Your task to perform on an android device: Show the shopping cart on newegg.com. Search for "razer blade" on newegg.com, select the first entry, add it to the cart, then select checkout. Image 0: 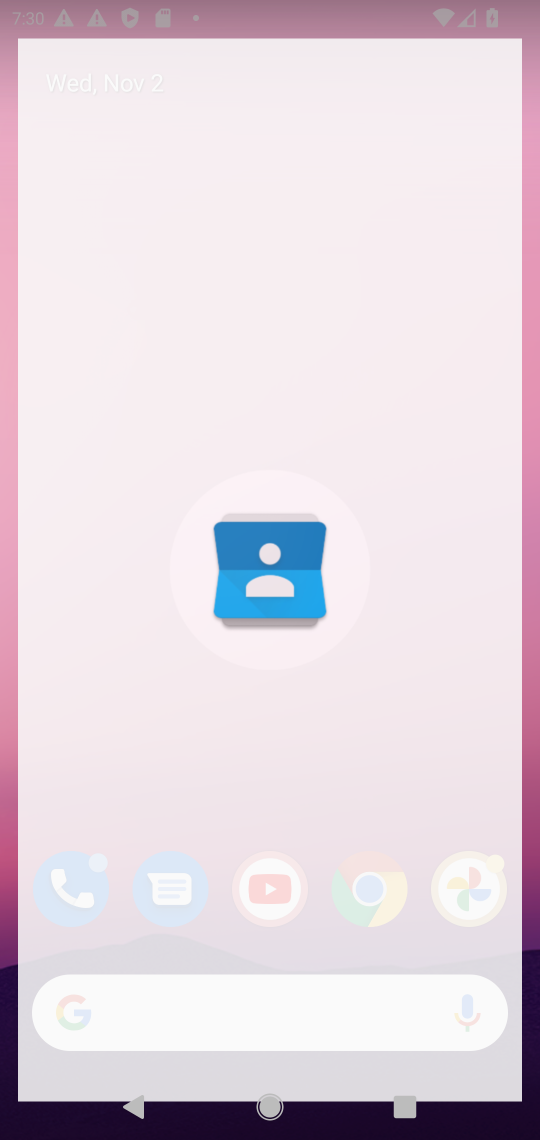
Step 0: press home button
Your task to perform on an android device: Show the shopping cart on newegg.com. Search for "razer blade" on newegg.com, select the first entry, add it to the cart, then select checkout. Image 1: 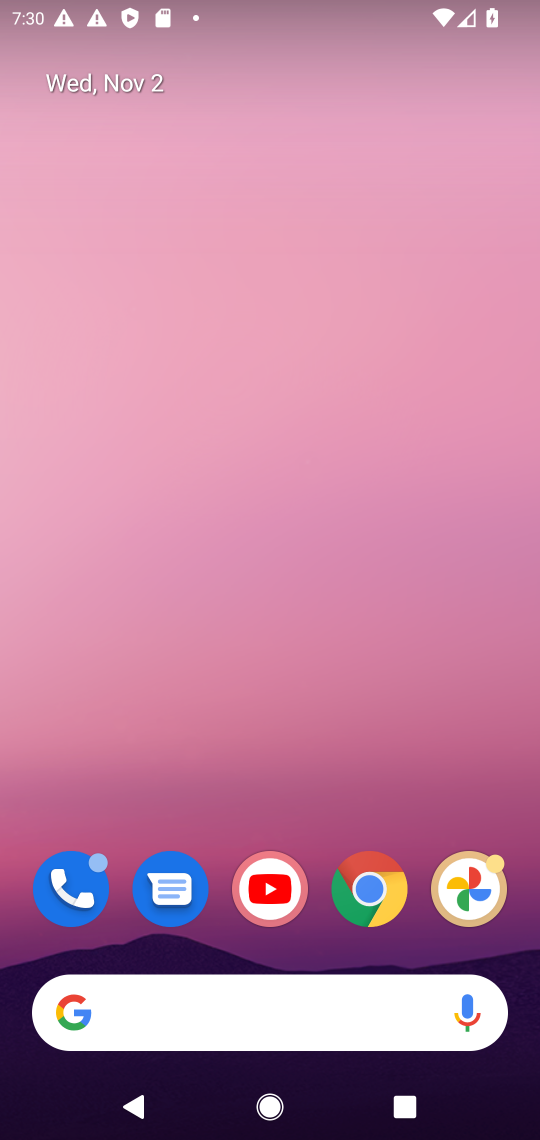
Step 1: drag from (305, 834) to (294, 43)
Your task to perform on an android device: Show the shopping cart on newegg.com. Search for "razer blade" on newegg.com, select the first entry, add it to the cart, then select checkout. Image 2: 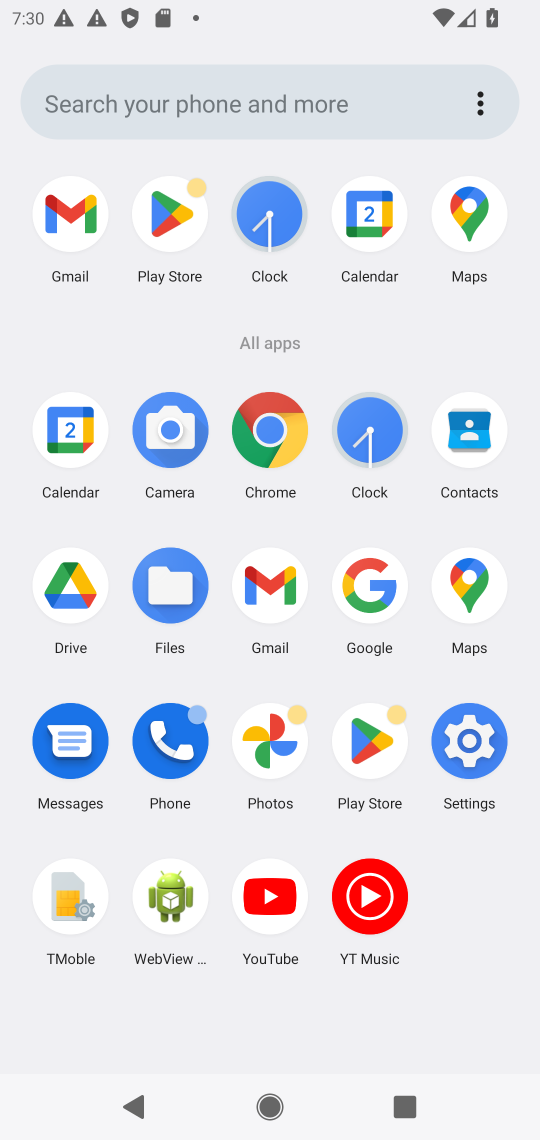
Step 2: click (264, 423)
Your task to perform on an android device: Show the shopping cart on newegg.com. Search for "razer blade" on newegg.com, select the first entry, add it to the cart, then select checkout. Image 3: 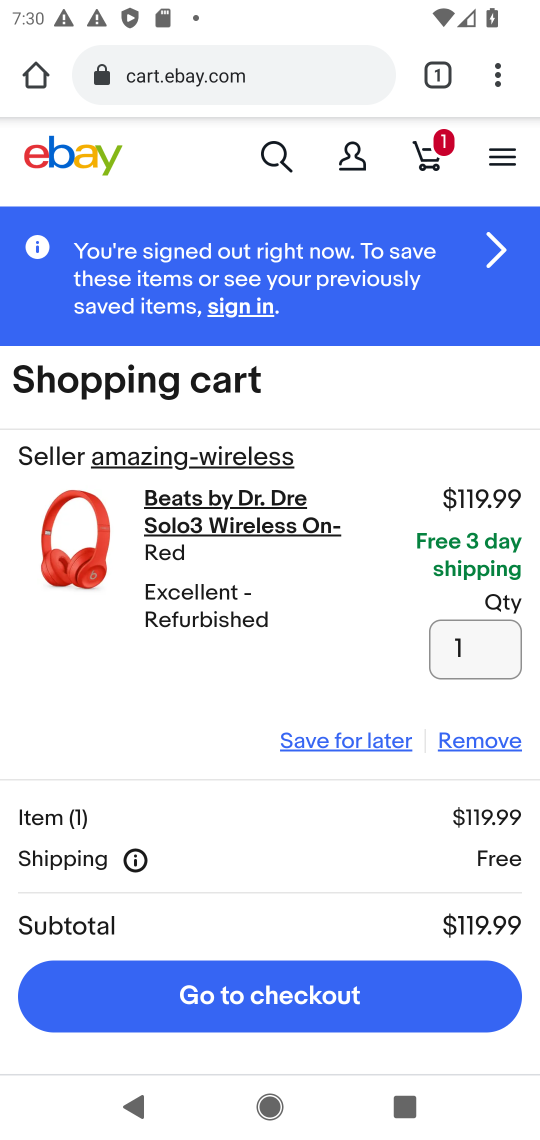
Step 3: click (273, 62)
Your task to perform on an android device: Show the shopping cart on newegg.com. Search for "razer blade" on newegg.com, select the first entry, add it to the cart, then select checkout. Image 4: 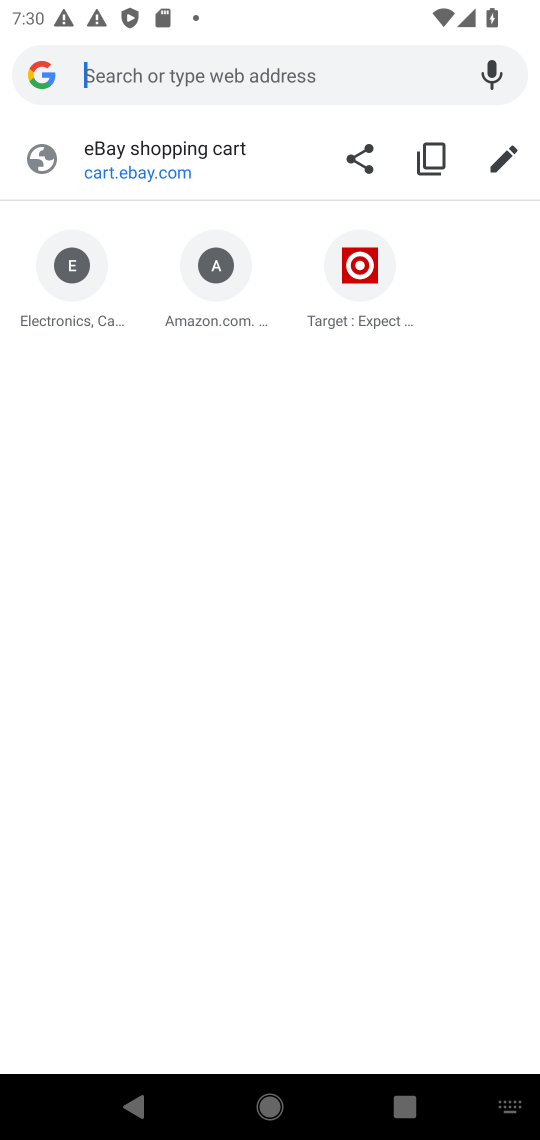
Step 4: type "newegg"
Your task to perform on an android device: Show the shopping cart on newegg.com. Search for "razer blade" on newegg.com, select the first entry, add it to the cart, then select checkout. Image 5: 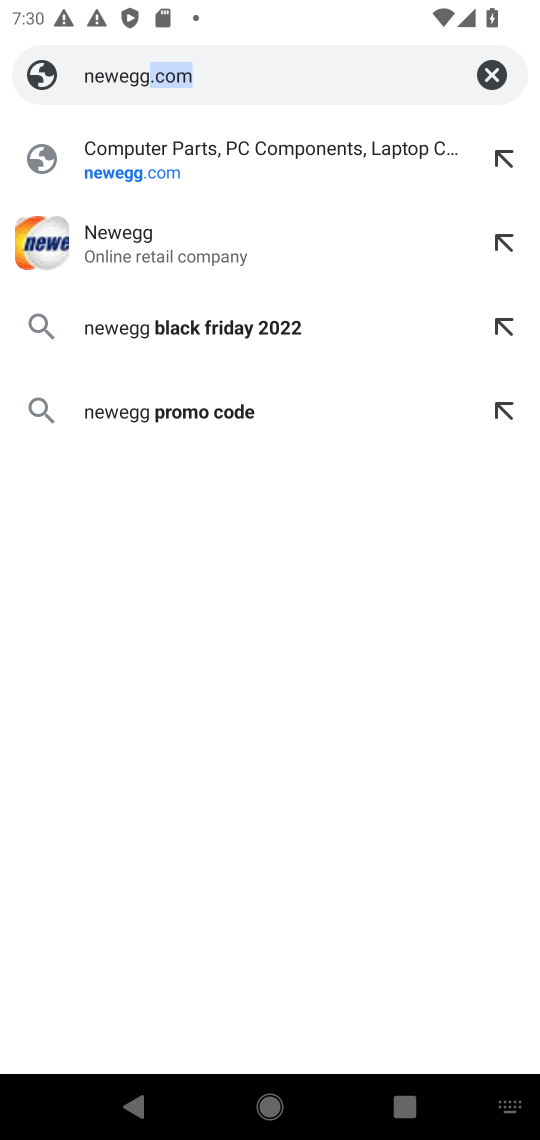
Step 5: click (216, 164)
Your task to perform on an android device: Show the shopping cart on newegg.com. Search for "razer blade" on newegg.com, select the first entry, add it to the cart, then select checkout. Image 6: 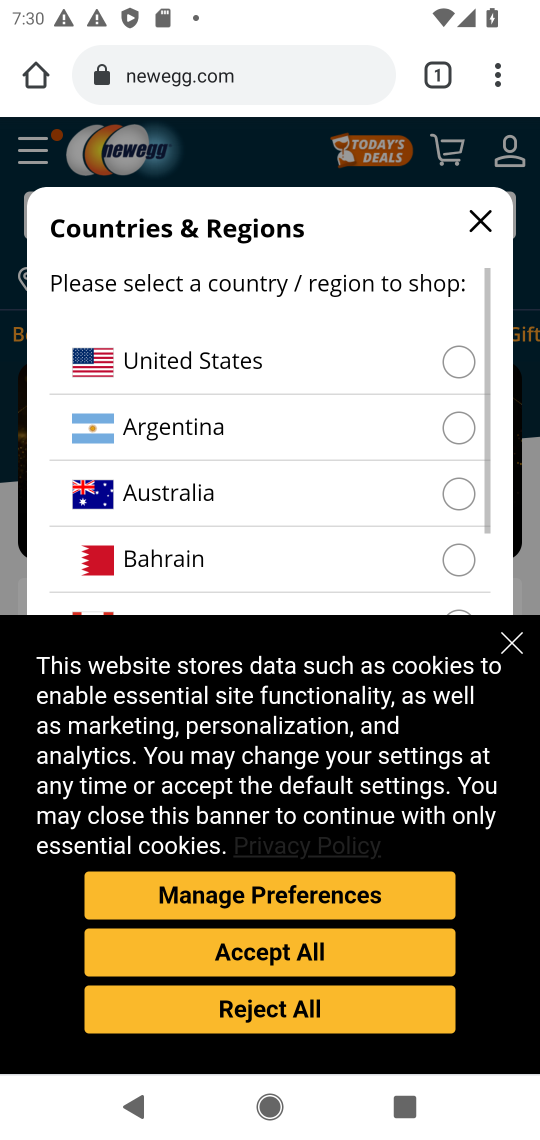
Step 6: click (510, 647)
Your task to perform on an android device: Show the shopping cart on newegg.com. Search for "razer blade" on newegg.com, select the first entry, add it to the cart, then select checkout. Image 7: 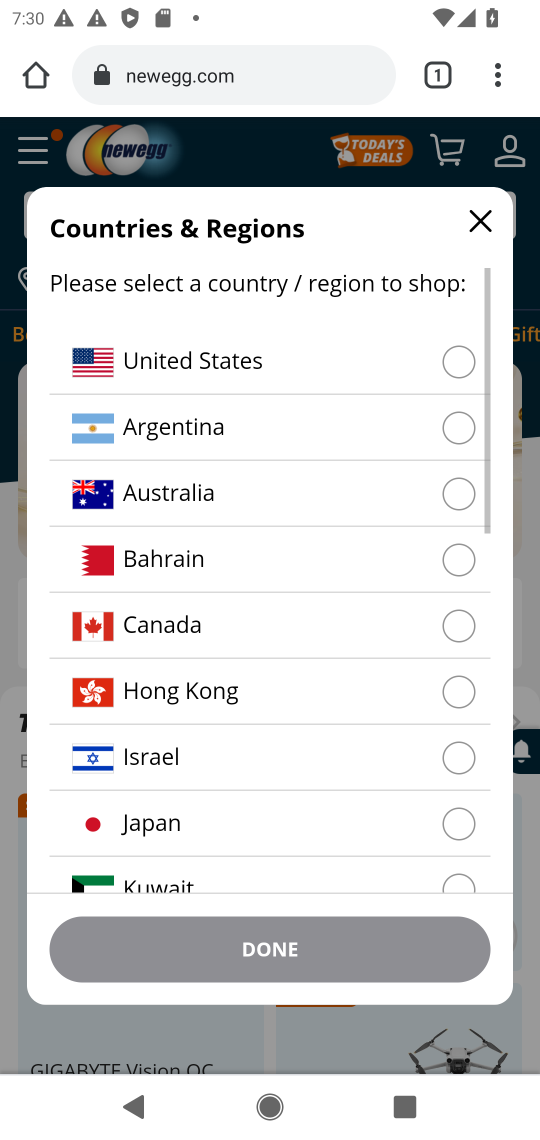
Step 7: click (453, 363)
Your task to perform on an android device: Show the shopping cart on newegg.com. Search for "razer blade" on newegg.com, select the first entry, add it to the cart, then select checkout. Image 8: 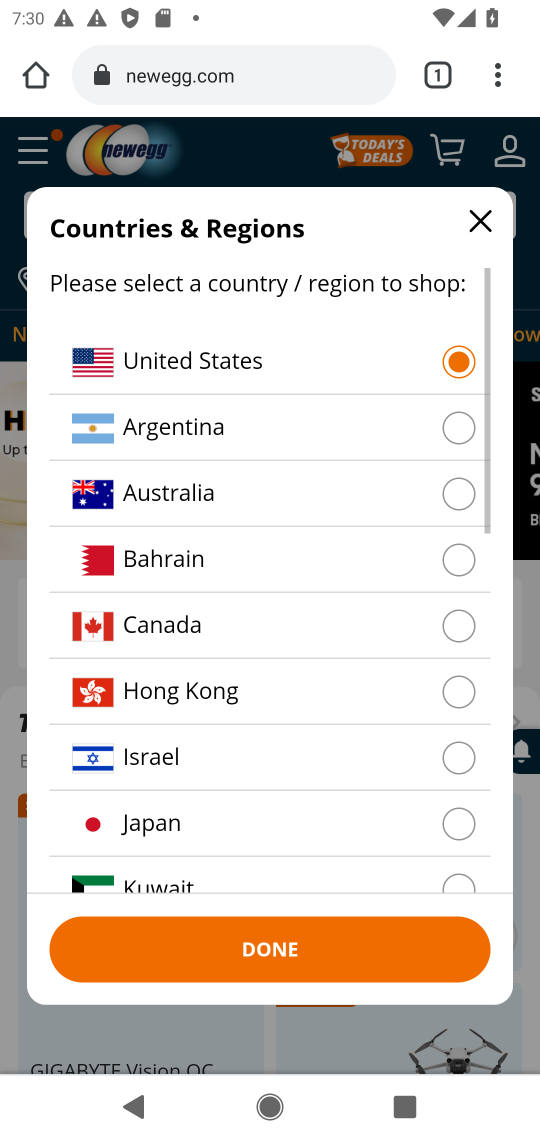
Step 8: click (288, 953)
Your task to perform on an android device: Show the shopping cart on newegg.com. Search for "razer blade" on newegg.com, select the first entry, add it to the cart, then select checkout. Image 9: 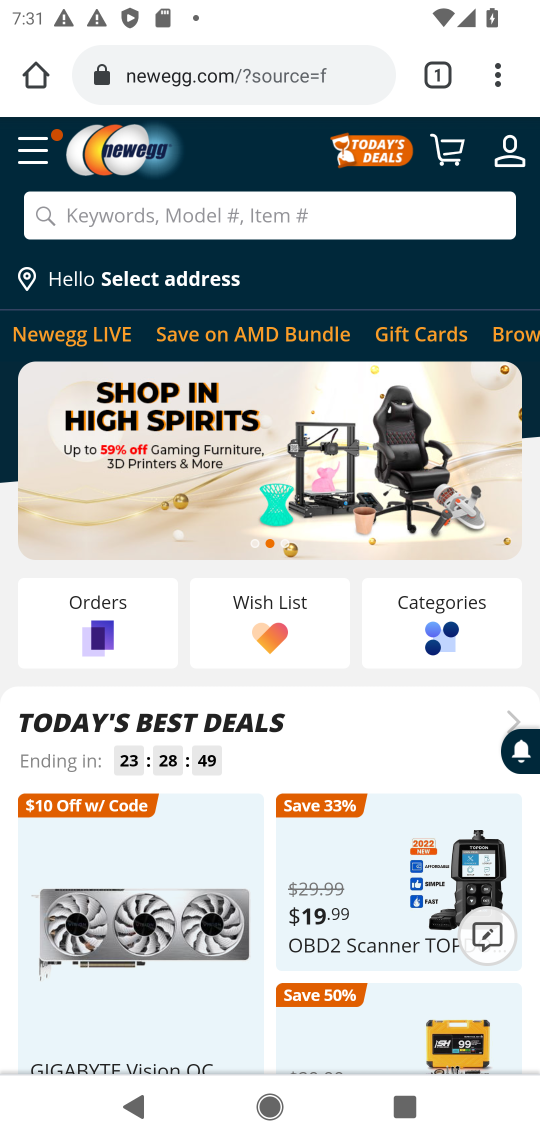
Step 9: click (129, 214)
Your task to perform on an android device: Show the shopping cart on newegg.com. Search for "razer blade" on newegg.com, select the first entry, add it to the cart, then select checkout. Image 10: 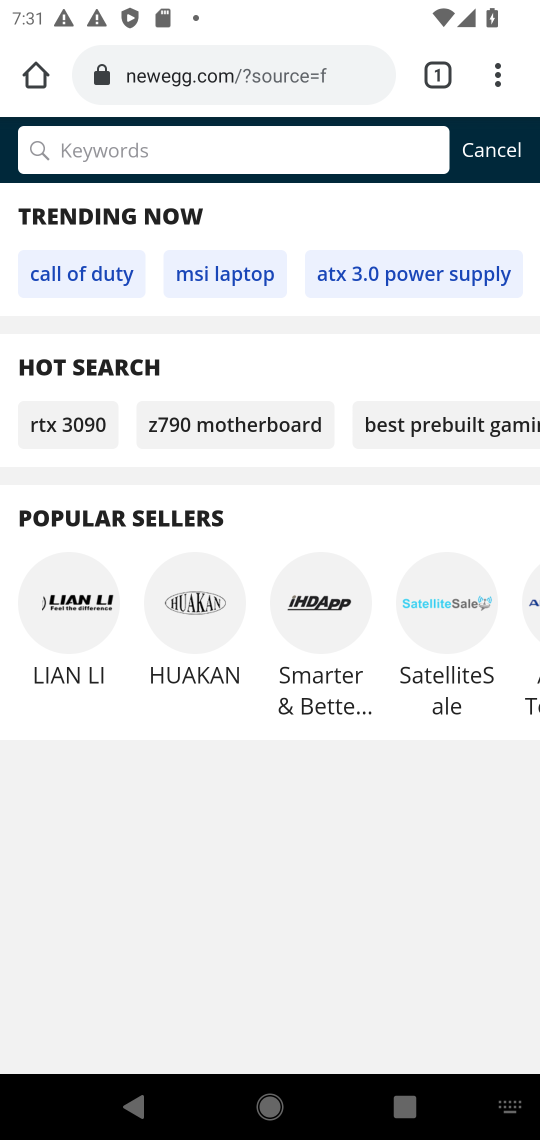
Step 10: type "razer blade"
Your task to perform on an android device: Show the shopping cart on newegg.com. Search for "razer blade" on newegg.com, select the first entry, add it to the cart, then select checkout. Image 11: 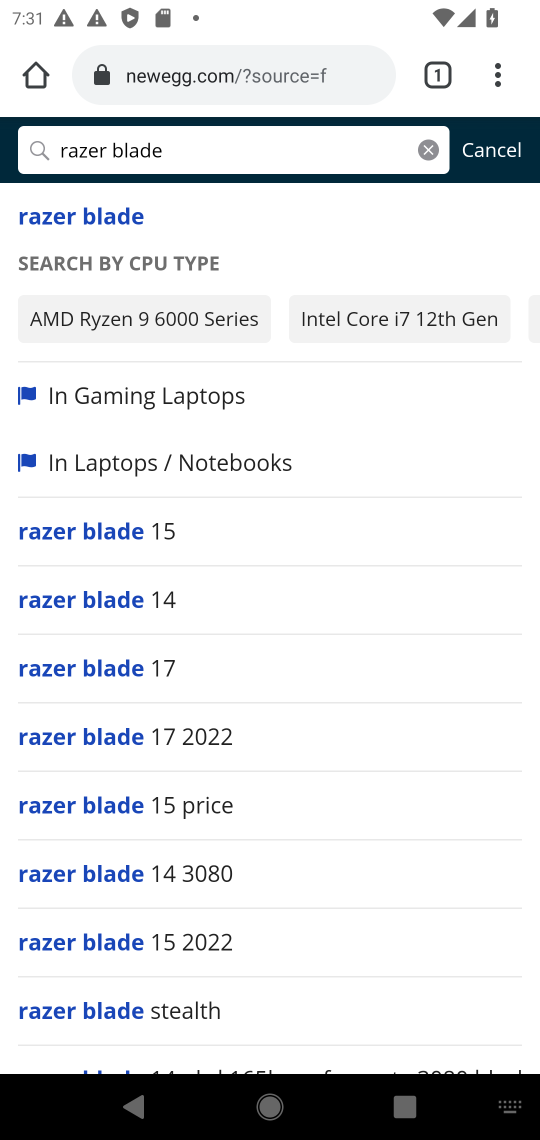
Step 11: click (97, 211)
Your task to perform on an android device: Show the shopping cart on newegg.com. Search for "razer blade" on newegg.com, select the first entry, add it to the cart, then select checkout. Image 12: 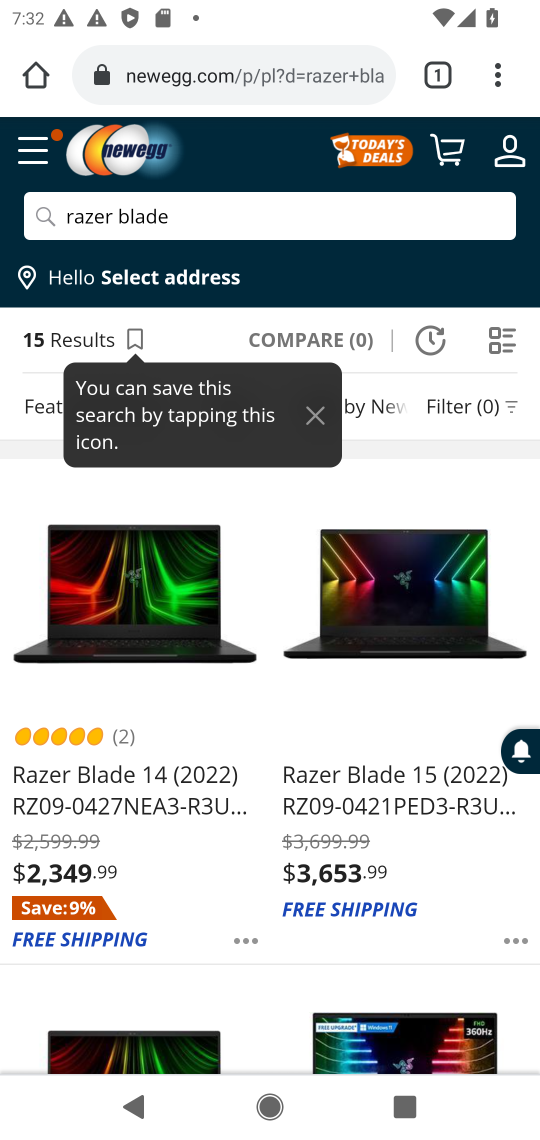
Step 12: click (159, 693)
Your task to perform on an android device: Show the shopping cart on newegg.com. Search for "razer blade" on newegg.com, select the first entry, add it to the cart, then select checkout. Image 13: 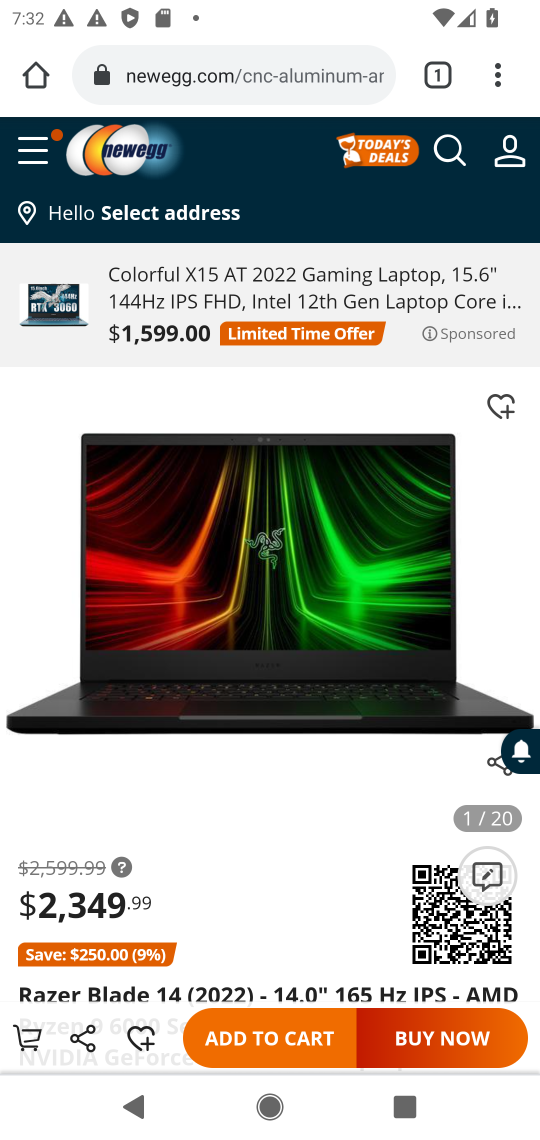
Step 13: drag from (259, 907) to (218, 283)
Your task to perform on an android device: Show the shopping cart on newegg.com. Search for "razer blade" on newegg.com, select the first entry, add it to the cart, then select checkout. Image 14: 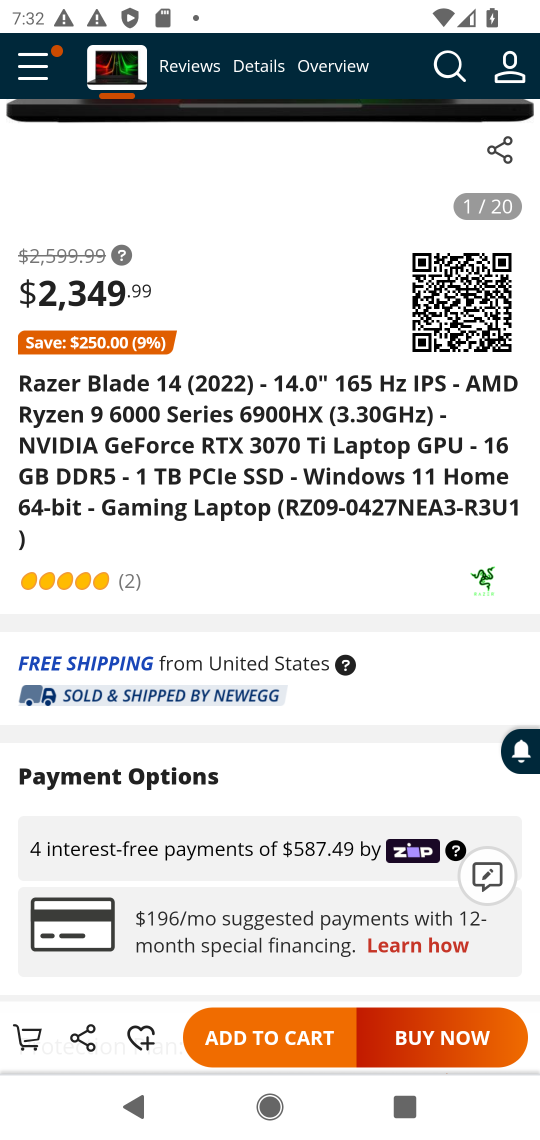
Step 14: drag from (267, 805) to (256, 273)
Your task to perform on an android device: Show the shopping cart on newegg.com. Search for "razer blade" on newegg.com, select the first entry, add it to the cart, then select checkout. Image 15: 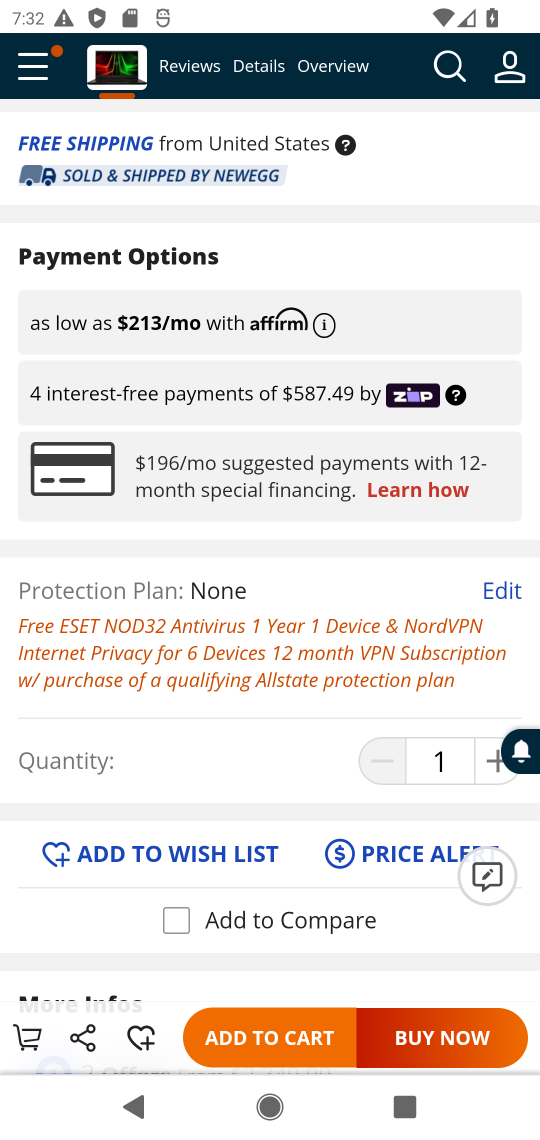
Step 15: drag from (222, 962) to (251, 443)
Your task to perform on an android device: Show the shopping cart on newegg.com. Search for "razer blade" on newegg.com, select the first entry, add it to the cart, then select checkout. Image 16: 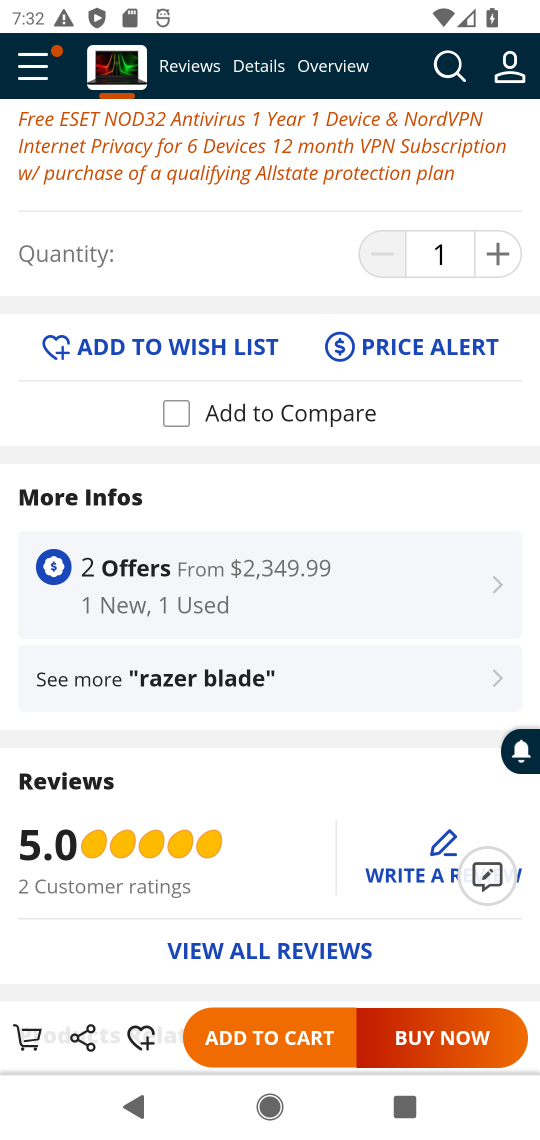
Step 16: drag from (249, 307) to (258, 1064)
Your task to perform on an android device: Show the shopping cart on newegg.com. Search for "razer blade" on newegg.com, select the first entry, add it to the cart, then select checkout. Image 17: 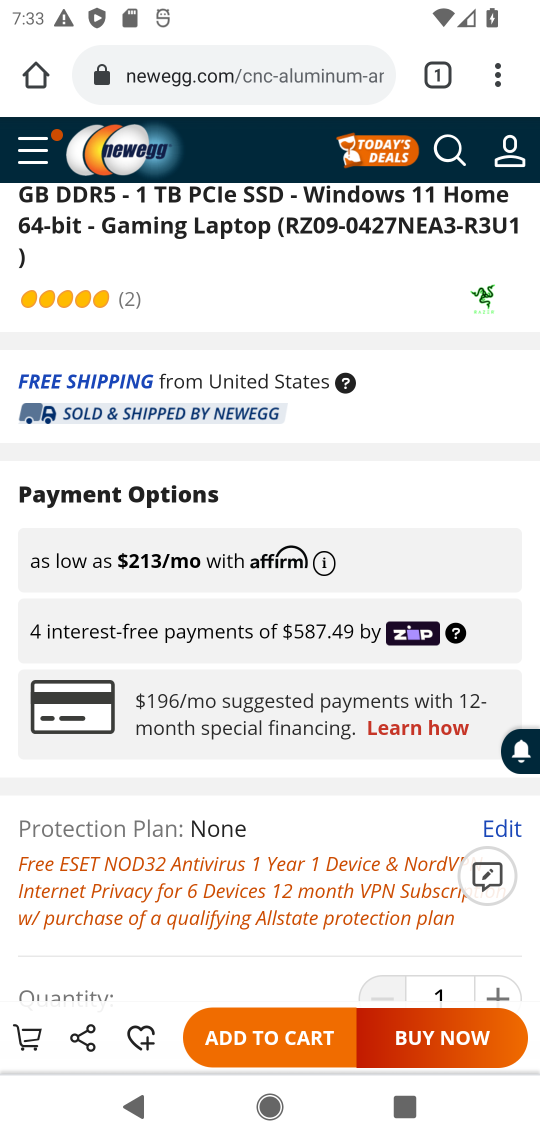
Step 17: drag from (259, 336) to (277, 942)
Your task to perform on an android device: Show the shopping cart on newegg.com. Search for "razer blade" on newegg.com, select the first entry, add it to the cart, then select checkout. Image 18: 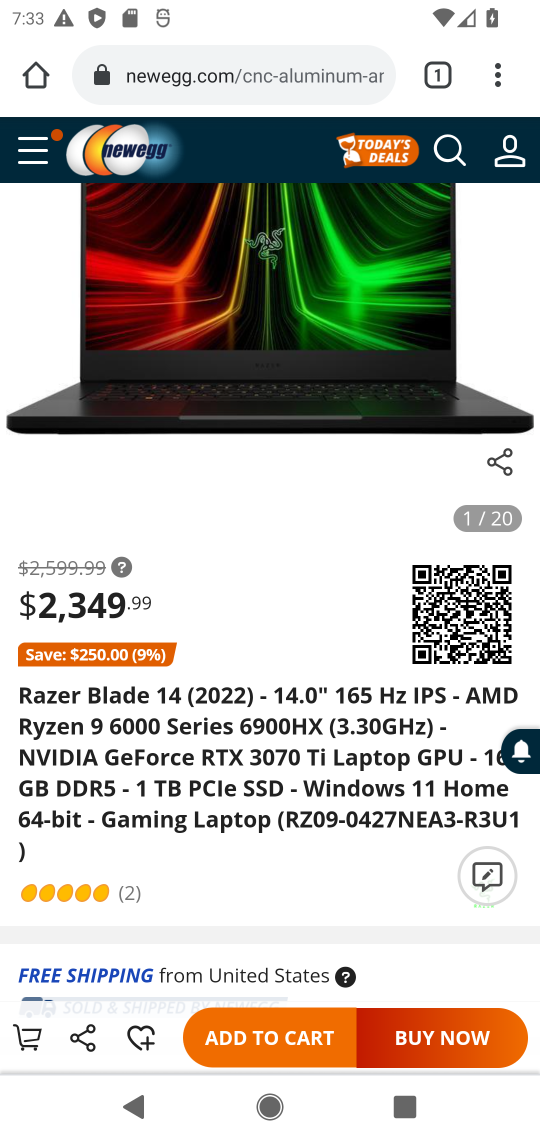
Step 18: click (254, 1046)
Your task to perform on an android device: Show the shopping cart on newegg.com. Search for "razer blade" on newegg.com, select the first entry, add it to the cart, then select checkout. Image 19: 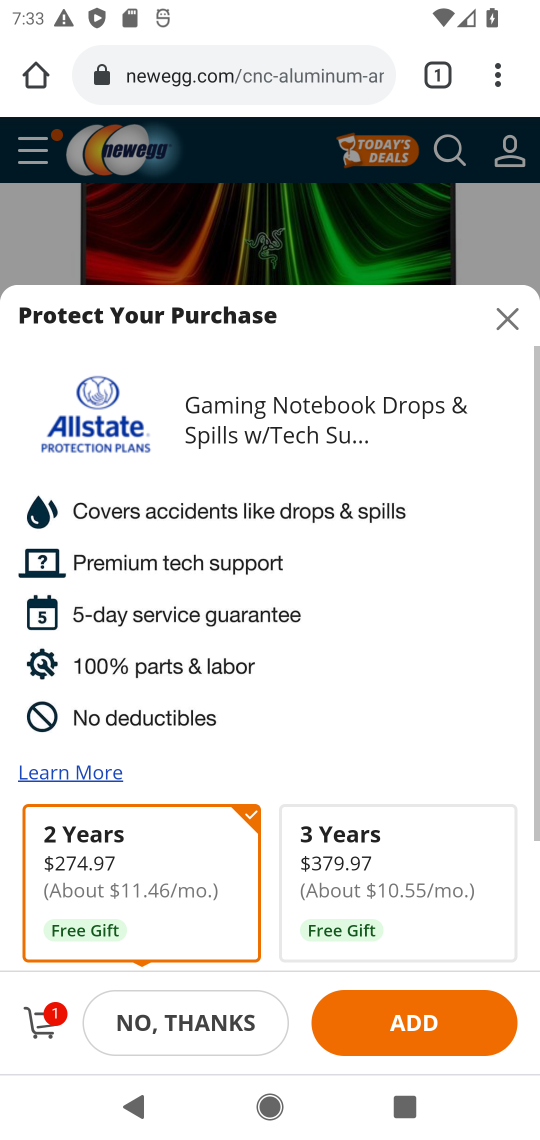
Step 19: click (218, 1018)
Your task to perform on an android device: Show the shopping cart on newegg.com. Search for "razer blade" on newegg.com, select the first entry, add it to the cart, then select checkout. Image 20: 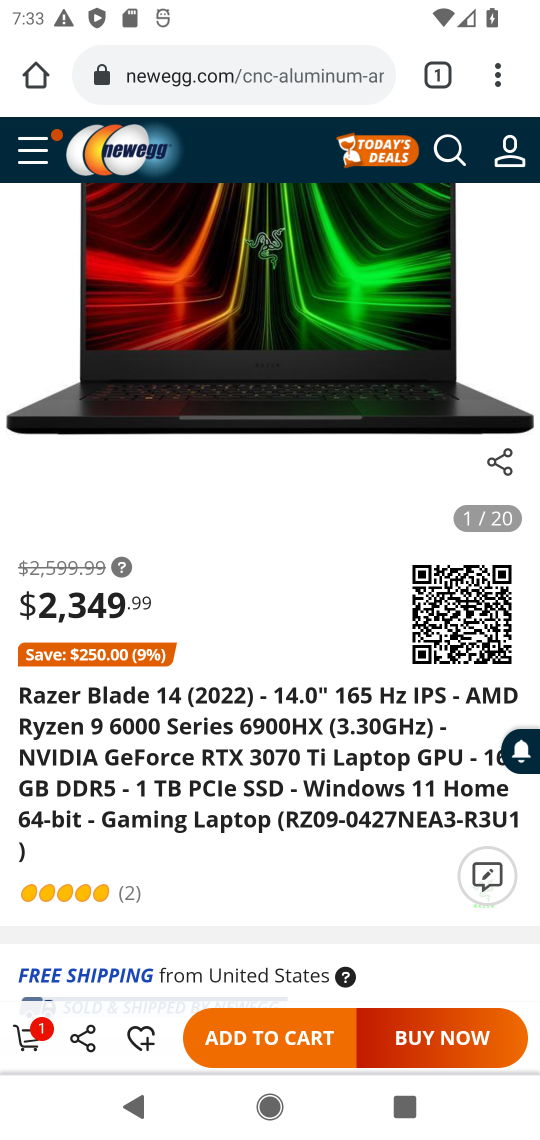
Step 20: click (36, 1031)
Your task to perform on an android device: Show the shopping cart on newegg.com. Search for "razer blade" on newegg.com, select the first entry, add it to the cart, then select checkout. Image 21: 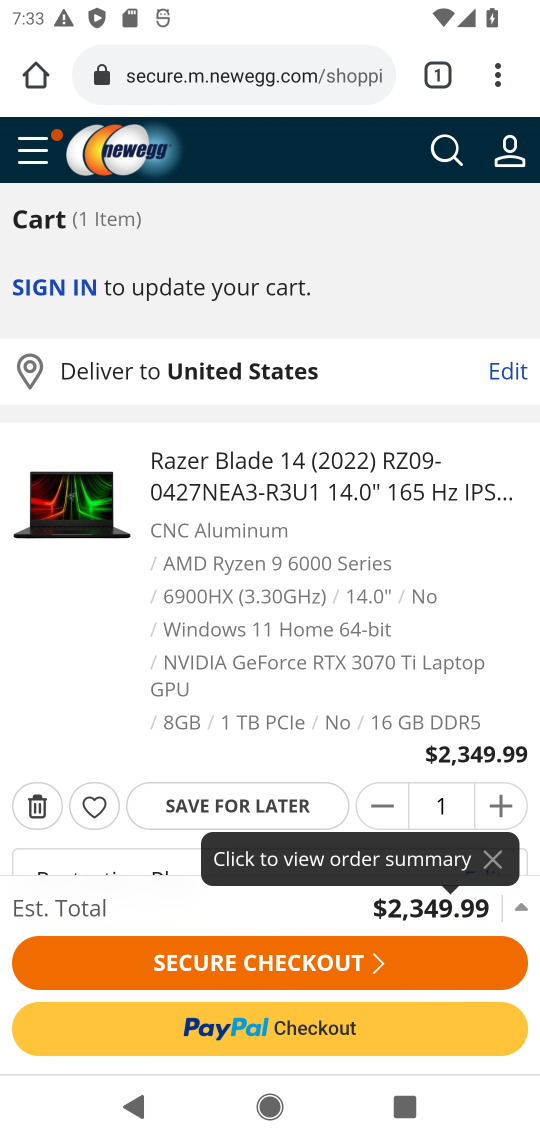
Step 21: click (265, 956)
Your task to perform on an android device: Show the shopping cart on newegg.com. Search for "razer blade" on newegg.com, select the first entry, add it to the cart, then select checkout. Image 22: 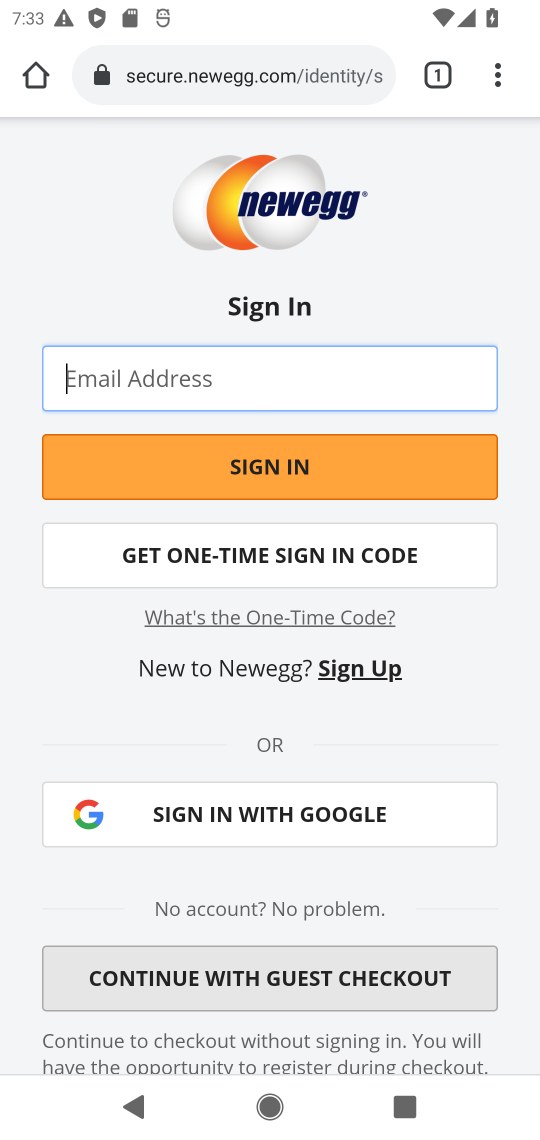
Step 22: click (295, 960)
Your task to perform on an android device: Show the shopping cart on newegg.com. Search for "razer blade" on newegg.com, select the first entry, add it to the cart, then select checkout. Image 23: 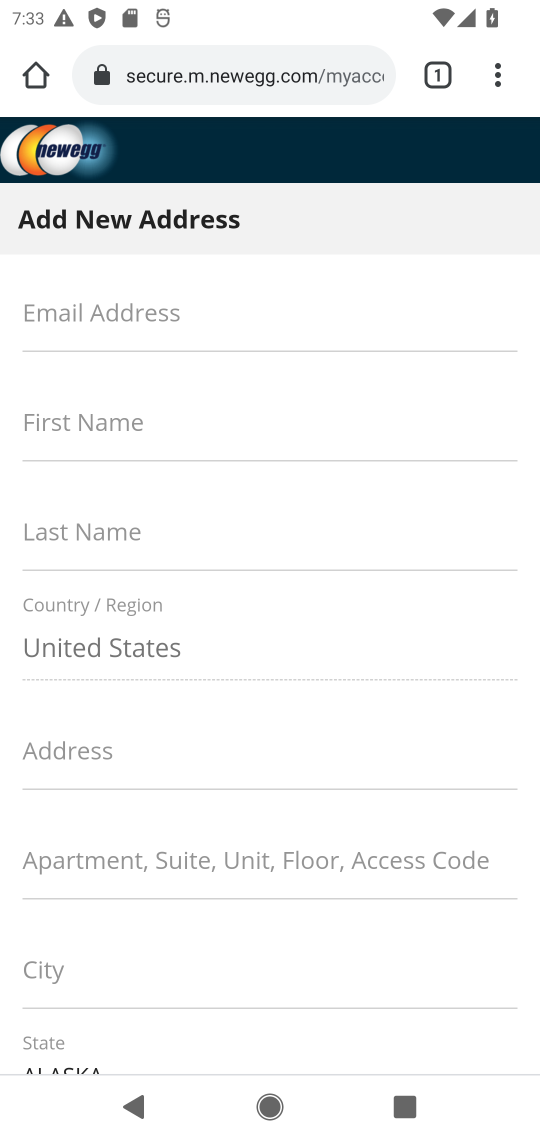
Step 23: task complete